Your task to perform on an android device: star an email in the gmail app Image 0: 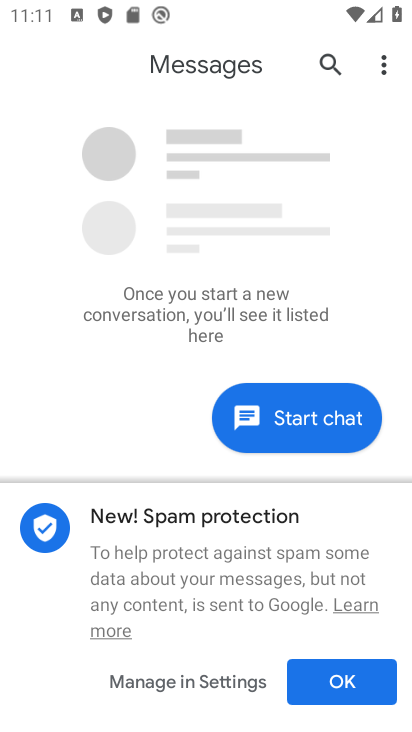
Step 0: press home button
Your task to perform on an android device: star an email in the gmail app Image 1: 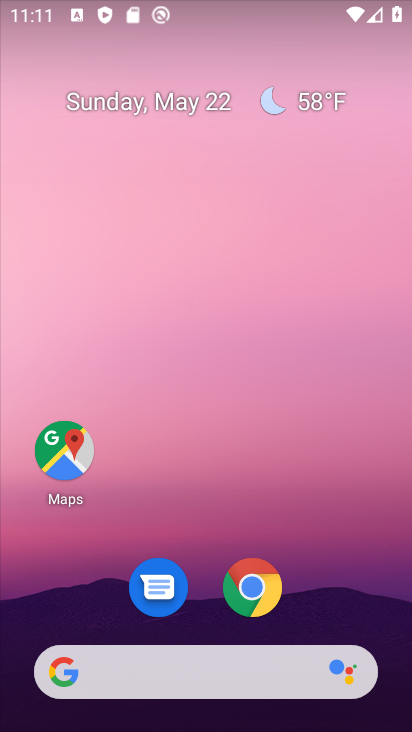
Step 1: drag from (192, 491) to (294, 6)
Your task to perform on an android device: star an email in the gmail app Image 2: 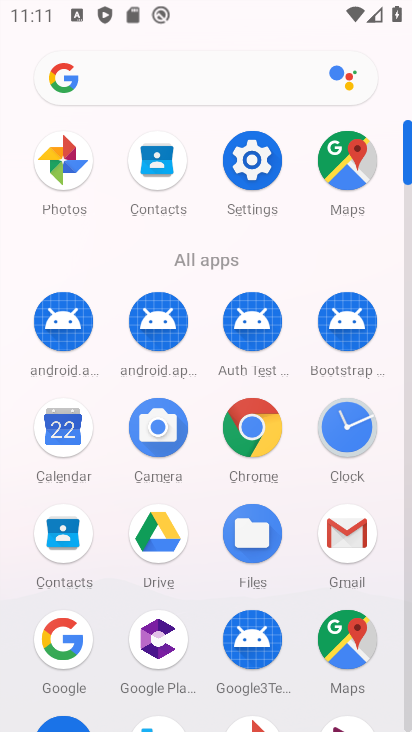
Step 2: click (332, 528)
Your task to perform on an android device: star an email in the gmail app Image 3: 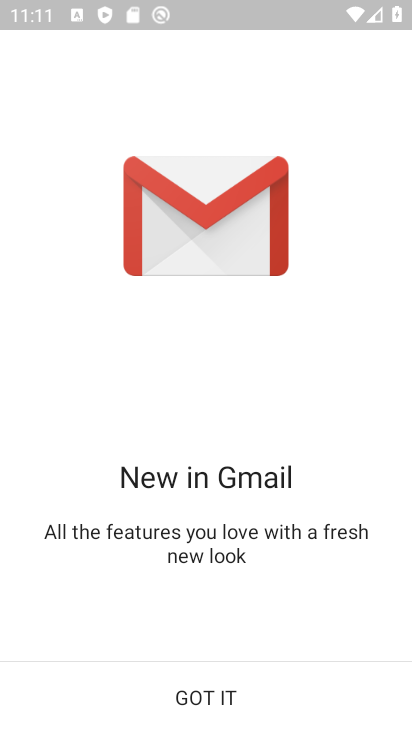
Step 3: click (251, 703)
Your task to perform on an android device: star an email in the gmail app Image 4: 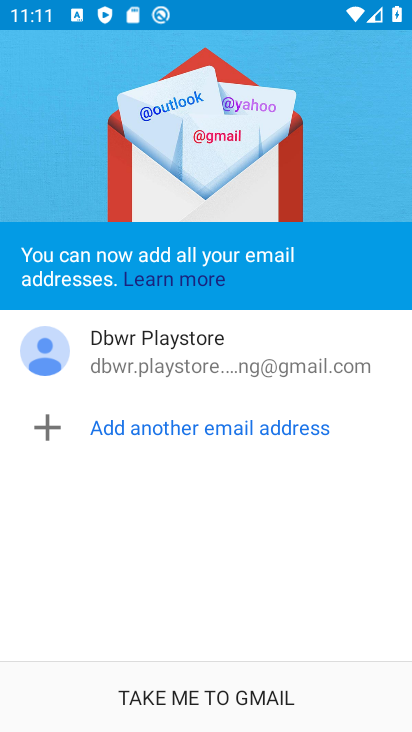
Step 4: click (253, 684)
Your task to perform on an android device: star an email in the gmail app Image 5: 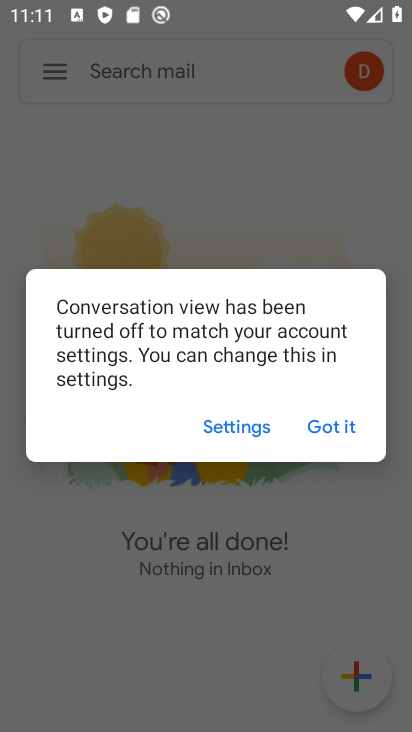
Step 5: click (326, 418)
Your task to perform on an android device: star an email in the gmail app Image 6: 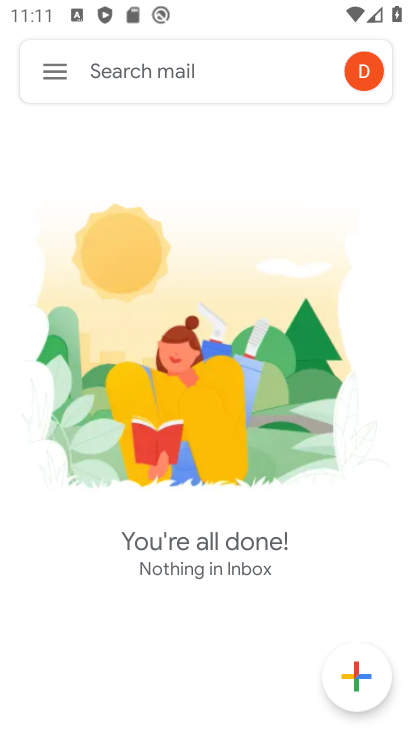
Step 6: click (57, 67)
Your task to perform on an android device: star an email in the gmail app Image 7: 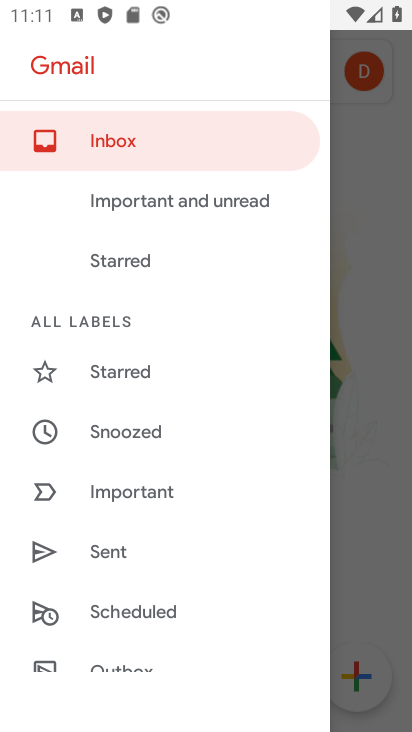
Step 7: drag from (144, 585) to (190, 294)
Your task to perform on an android device: star an email in the gmail app Image 8: 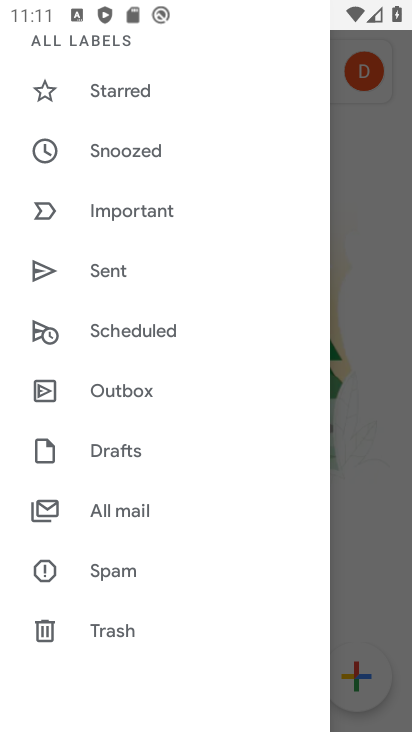
Step 8: click (141, 515)
Your task to perform on an android device: star an email in the gmail app Image 9: 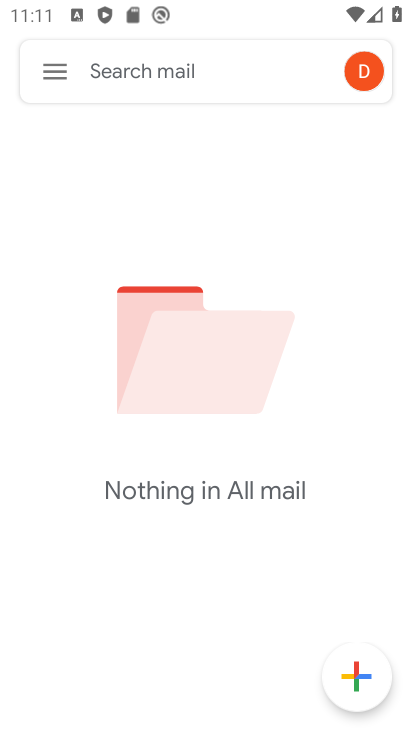
Step 9: task complete